Your task to perform on an android device: When is my next meeting? Image 0: 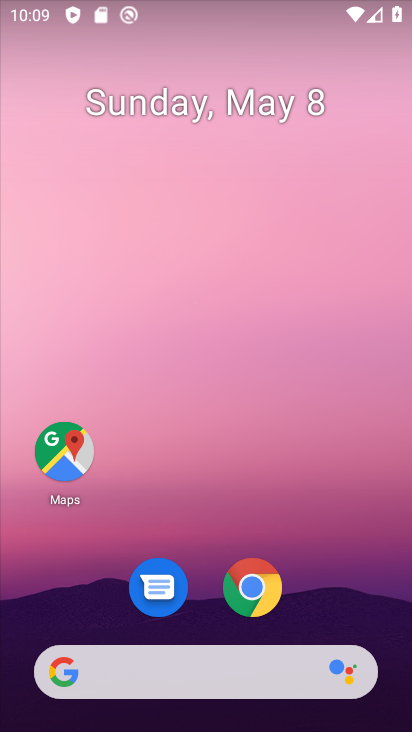
Step 0: drag from (289, 395) to (167, 8)
Your task to perform on an android device: When is my next meeting? Image 1: 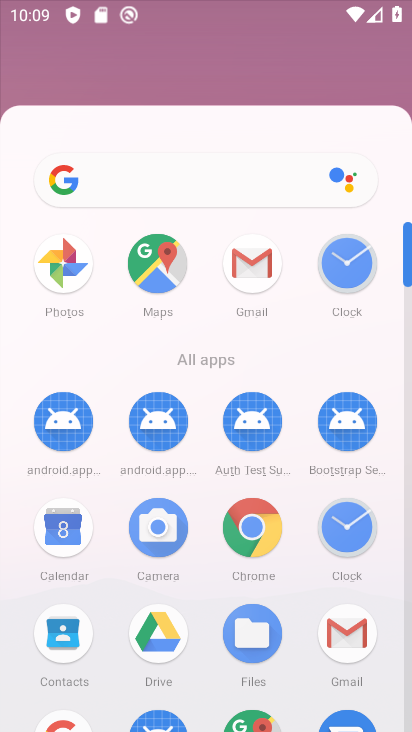
Step 1: drag from (328, 547) to (229, 115)
Your task to perform on an android device: When is my next meeting? Image 2: 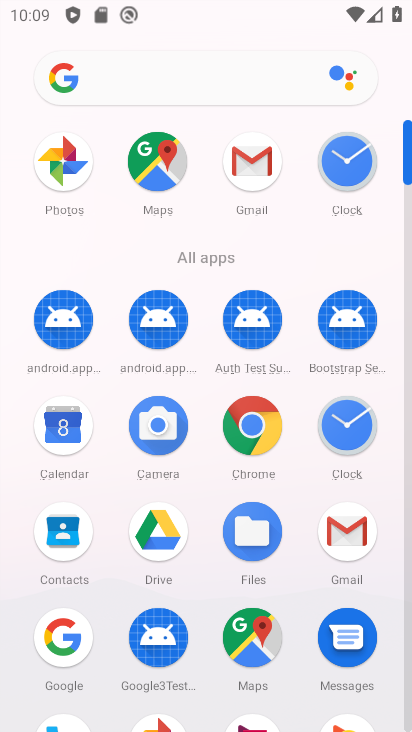
Step 2: click (43, 440)
Your task to perform on an android device: When is my next meeting? Image 3: 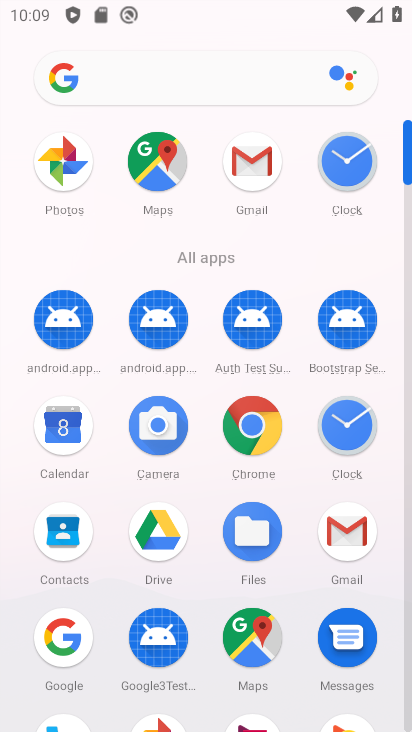
Step 3: click (72, 426)
Your task to perform on an android device: When is my next meeting? Image 4: 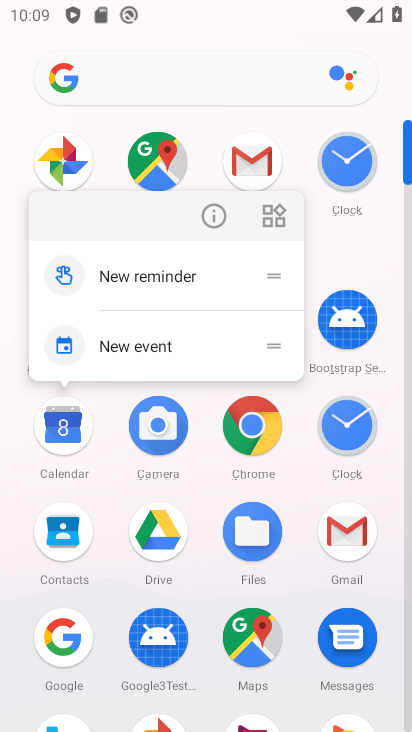
Step 4: click (69, 415)
Your task to perform on an android device: When is my next meeting? Image 5: 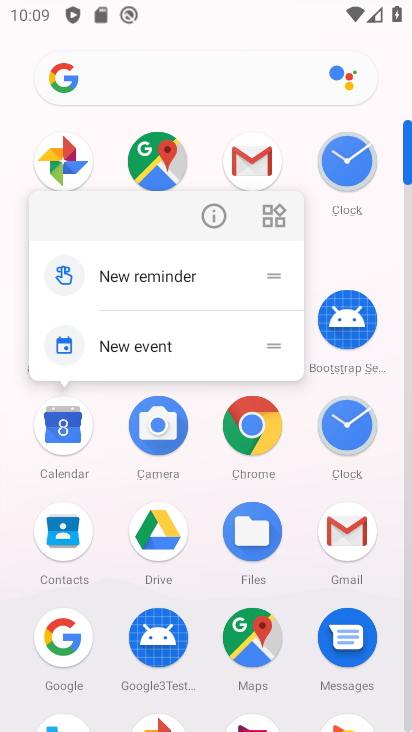
Step 5: click (61, 426)
Your task to perform on an android device: When is my next meeting? Image 6: 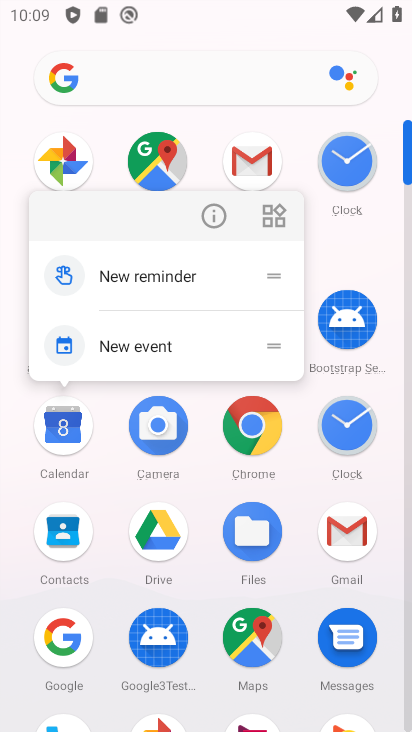
Step 6: click (63, 426)
Your task to perform on an android device: When is my next meeting? Image 7: 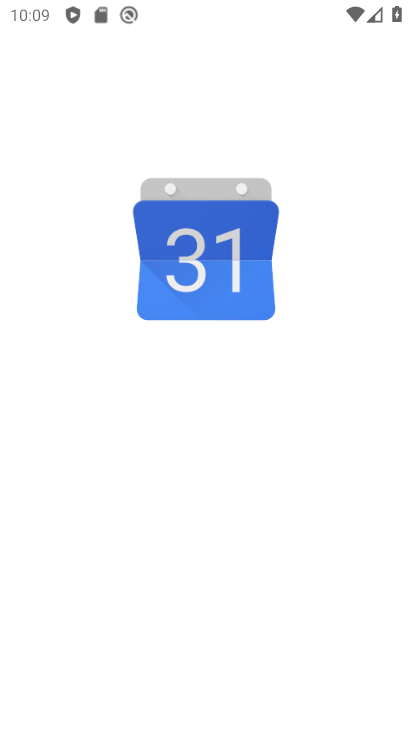
Step 7: click (67, 429)
Your task to perform on an android device: When is my next meeting? Image 8: 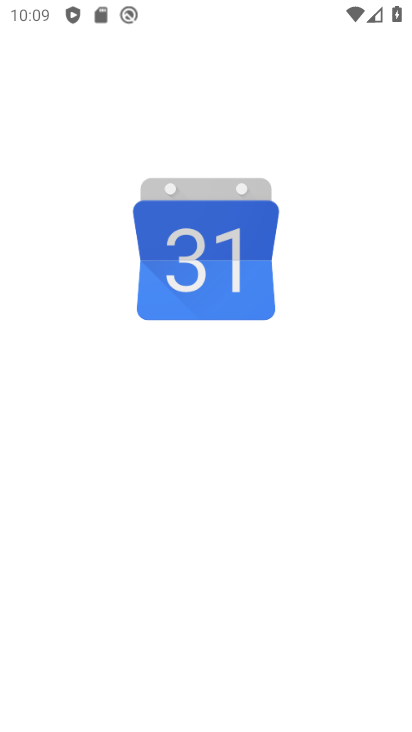
Step 8: click (67, 429)
Your task to perform on an android device: When is my next meeting? Image 9: 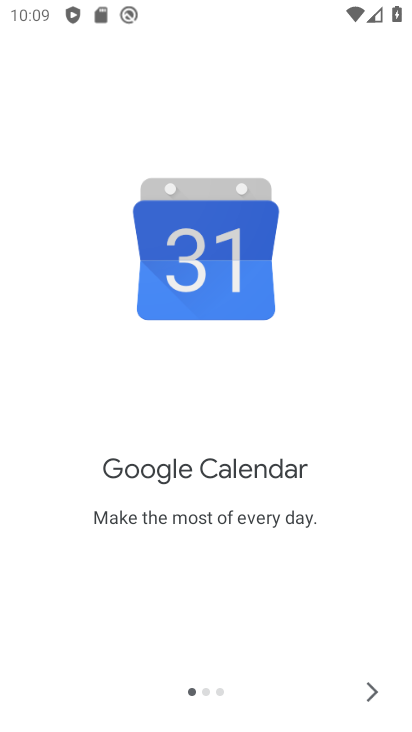
Step 9: drag from (67, 429) to (366, 691)
Your task to perform on an android device: When is my next meeting? Image 10: 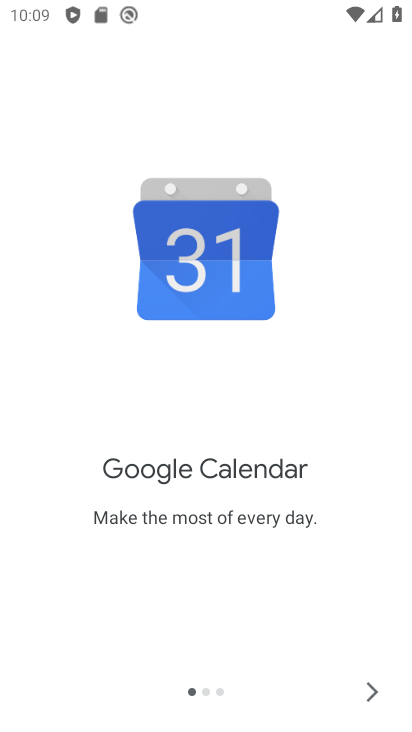
Step 10: click (67, 429)
Your task to perform on an android device: When is my next meeting? Image 11: 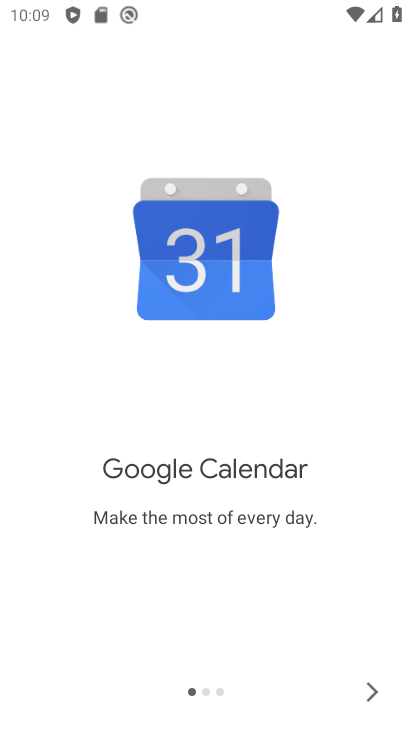
Step 11: click (67, 429)
Your task to perform on an android device: When is my next meeting? Image 12: 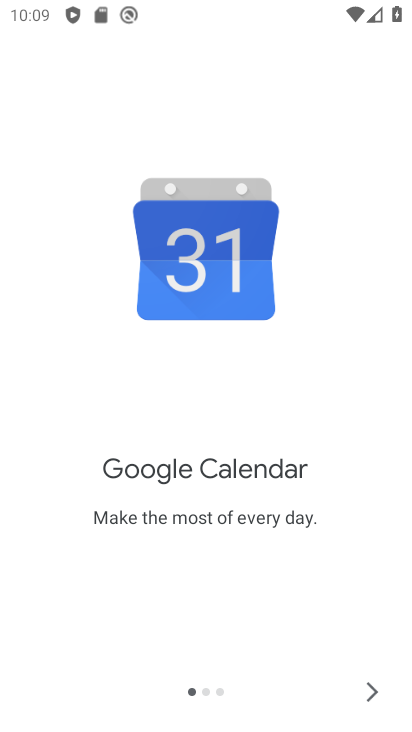
Step 12: click (67, 429)
Your task to perform on an android device: When is my next meeting? Image 13: 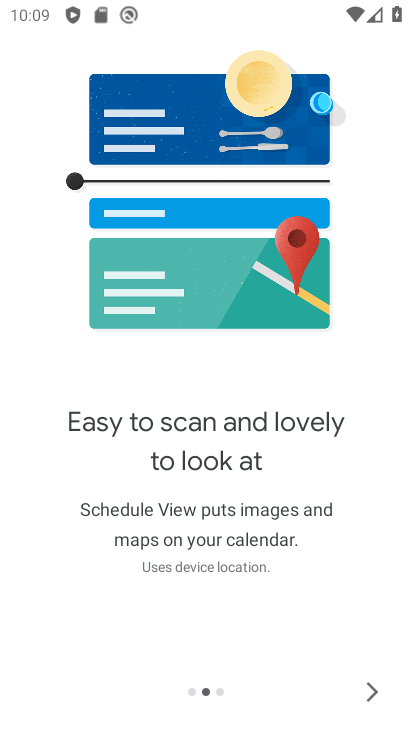
Step 13: click (377, 686)
Your task to perform on an android device: When is my next meeting? Image 14: 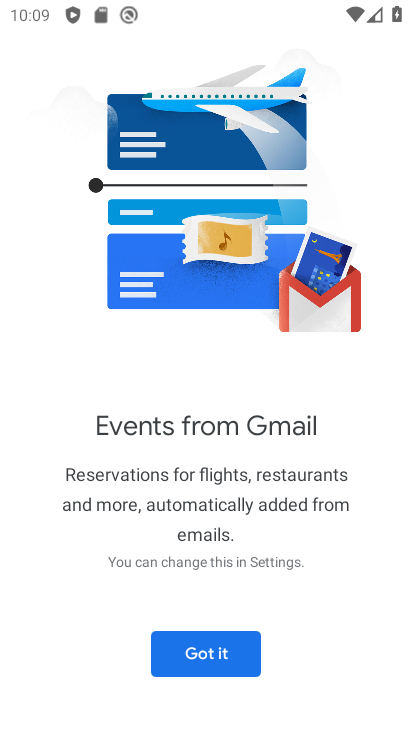
Step 14: click (229, 653)
Your task to perform on an android device: When is my next meeting? Image 15: 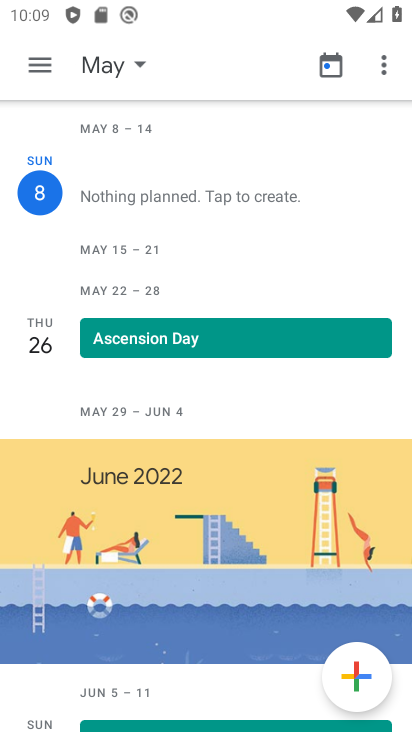
Step 15: click (135, 62)
Your task to perform on an android device: When is my next meeting? Image 16: 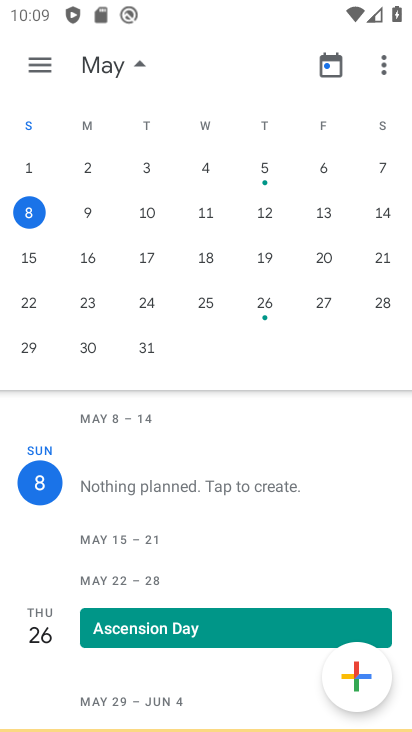
Step 16: drag from (127, 418) to (47, 144)
Your task to perform on an android device: When is my next meeting? Image 17: 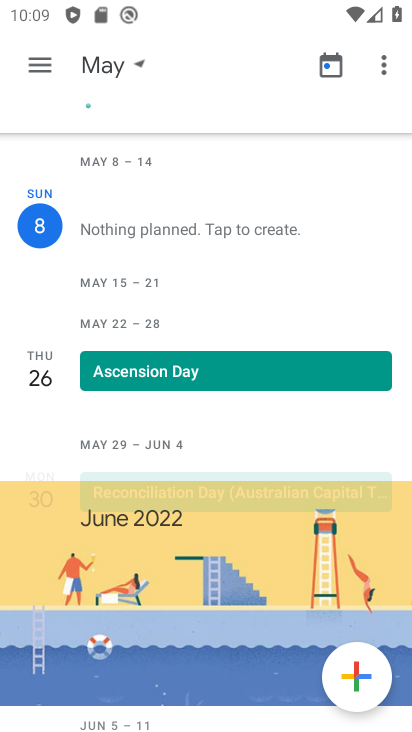
Step 17: drag from (221, 383) to (215, 176)
Your task to perform on an android device: When is my next meeting? Image 18: 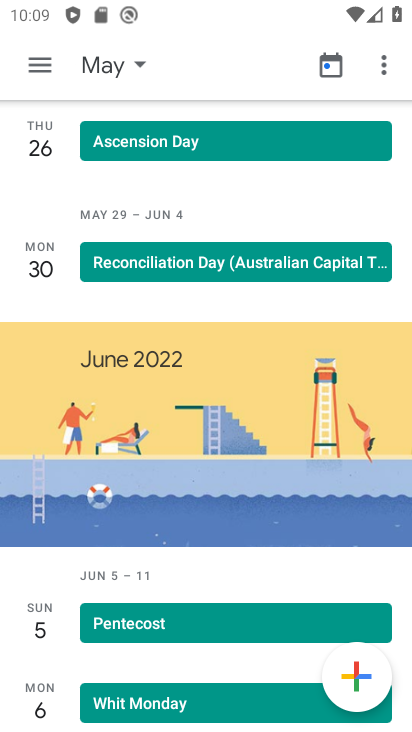
Step 18: drag from (149, 448) to (146, 134)
Your task to perform on an android device: When is my next meeting? Image 19: 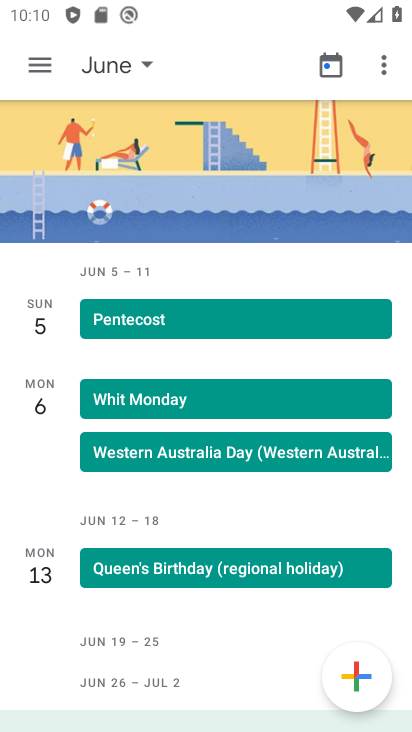
Step 19: drag from (187, 516) to (147, 217)
Your task to perform on an android device: When is my next meeting? Image 20: 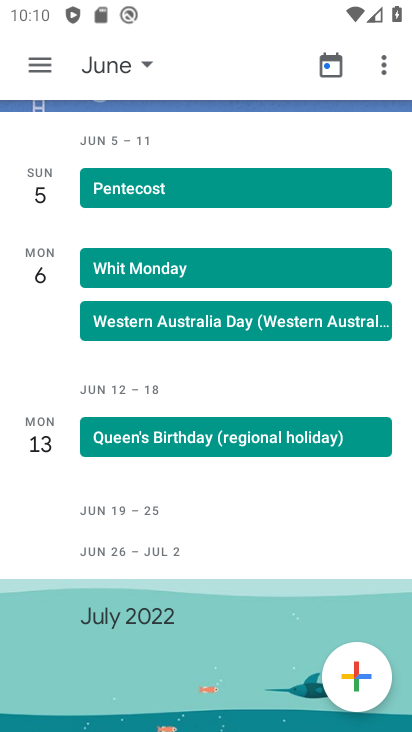
Step 20: drag from (203, 590) to (218, 204)
Your task to perform on an android device: When is my next meeting? Image 21: 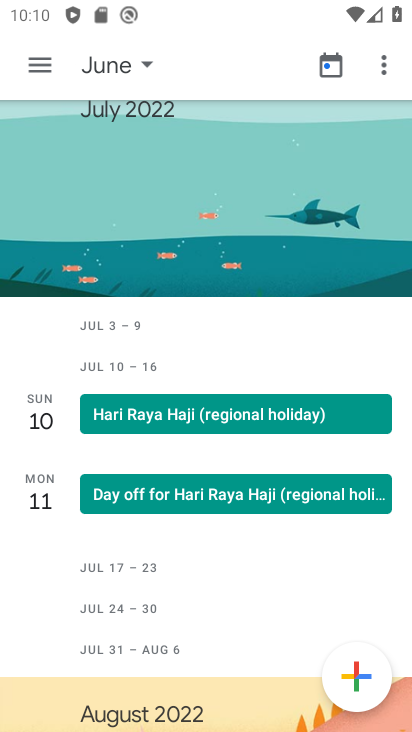
Step 21: drag from (139, 248) to (162, 713)
Your task to perform on an android device: When is my next meeting? Image 22: 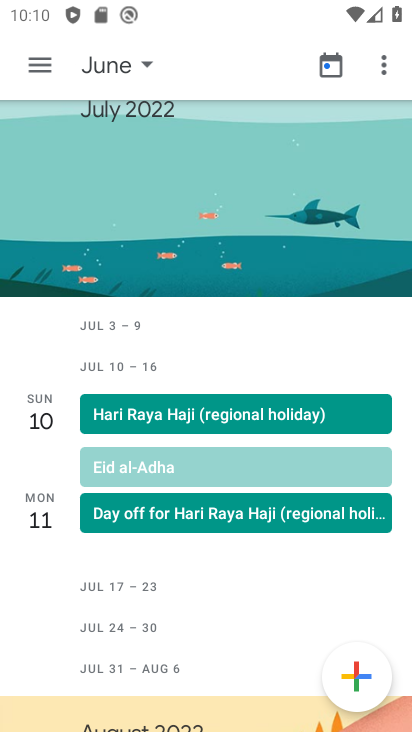
Step 22: drag from (166, 250) to (165, 597)
Your task to perform on an android device: When is my next meeting? Image 23: 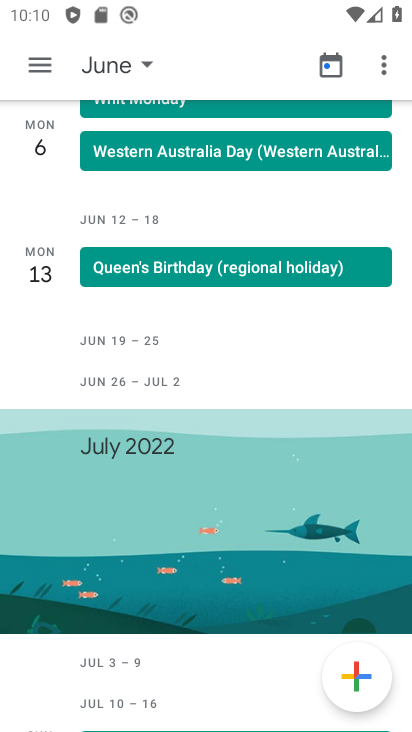
Step 23: drag from (90, 187) to (134, 628)
Your task to perform on an android device: When is my next meeting? Image 24: 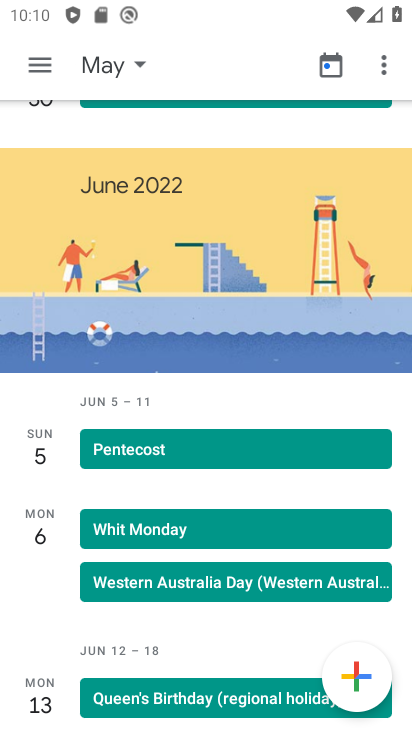
Step 24: click (158, 502)
Your task to perform on an android device: When is my next meeting? Image 25: 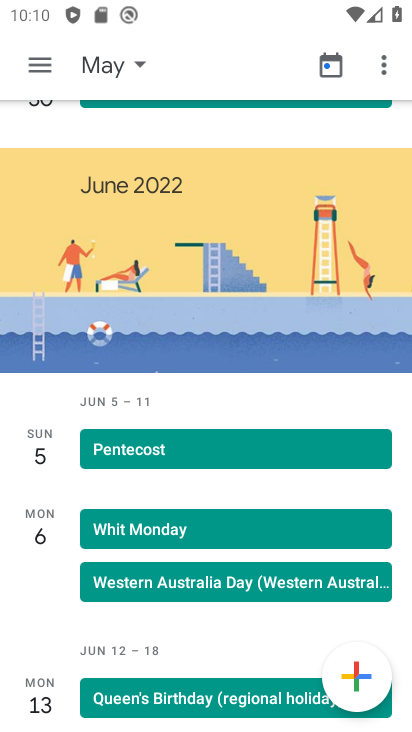
Step 25: drag from (123, 391) to (148, 528)
Your task to perform on an android device: When is my next meeting? Image 26: 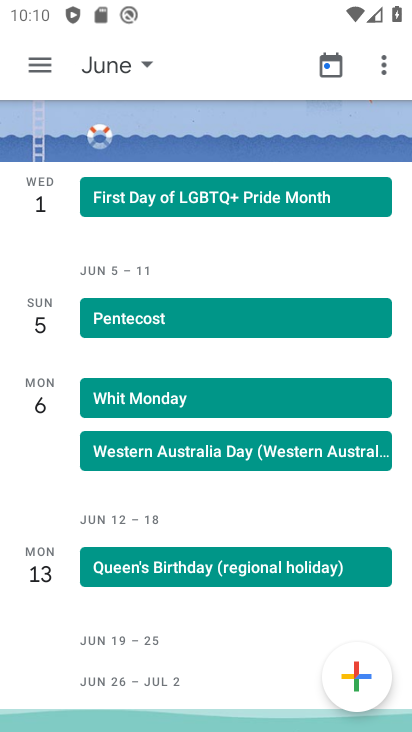
Step 26: drag from (181, 154) to (215, 397)
Your task to perform on an android device: When is my next meeting? Image 27: 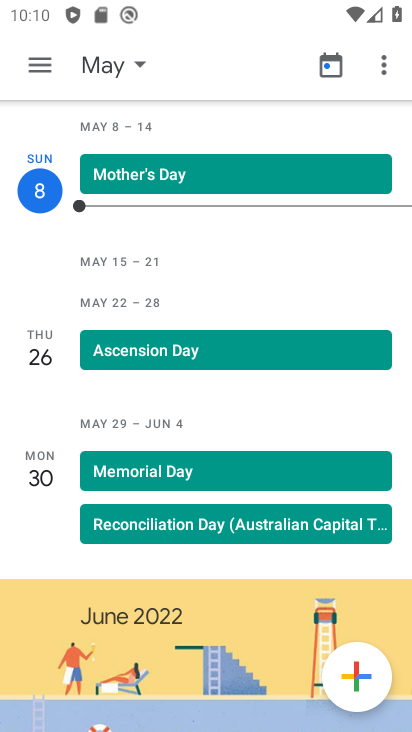
Step 27: click (191, 358)
Your task to perform on an android device: When is my next meeting? Image 28: 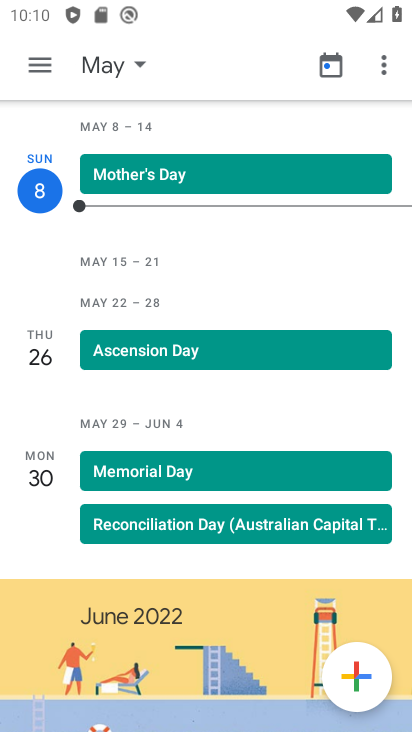
Step 28: drag from (128, 266) to (126, 437)
Your task to perform on an android device: When is my next meeting? Image 29: 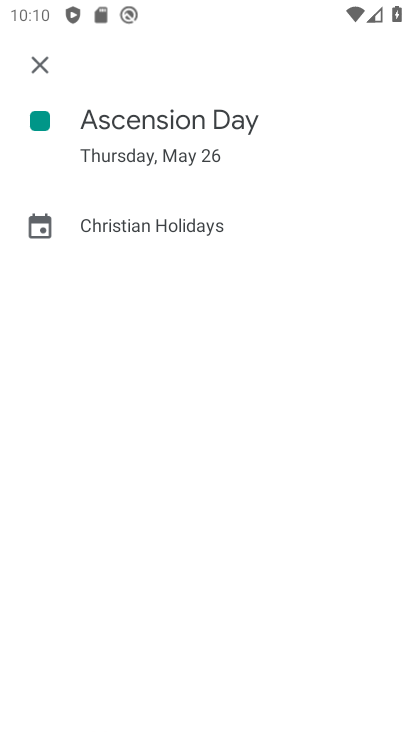
Step 29: click (138, 55)
Your task to perform on an android device: When is my next meeting? Image 30: 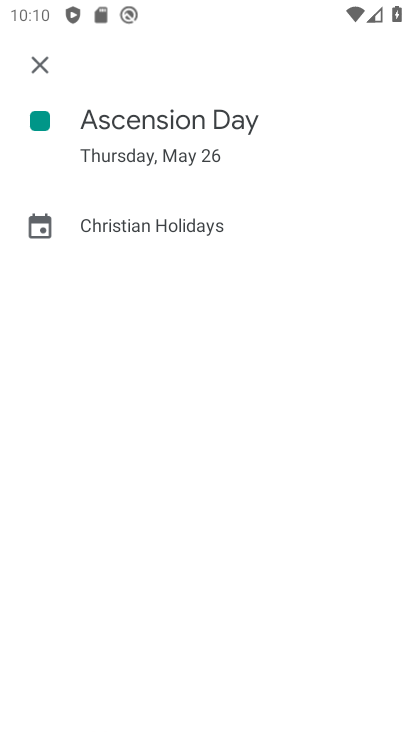
Step 30: click (26, 66)
Your task to perform on an android device: When is my next meeting? Image 31: 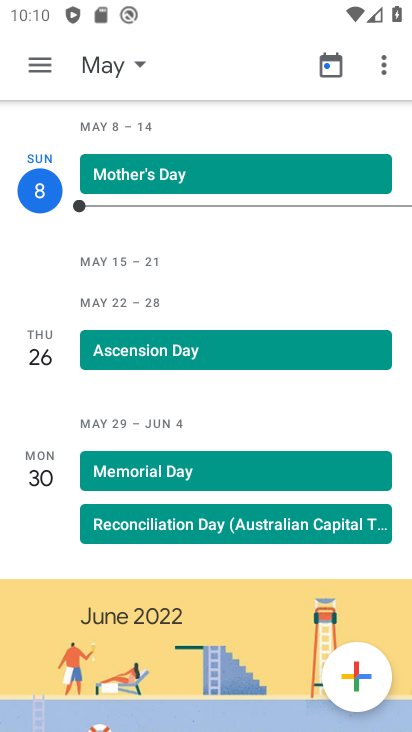
Step 31: task complete